Your task to perform on an android device: Go to Google Image 0: 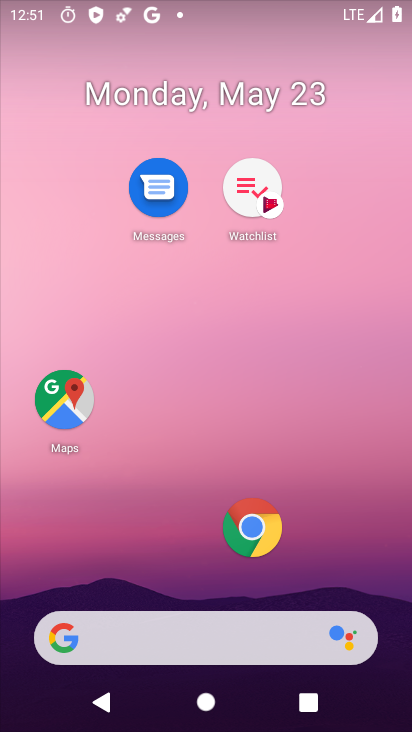
Step 0: drag from (242, 672) to (232, 320)
Your task to perform on an android device: Go to Google Image 1: 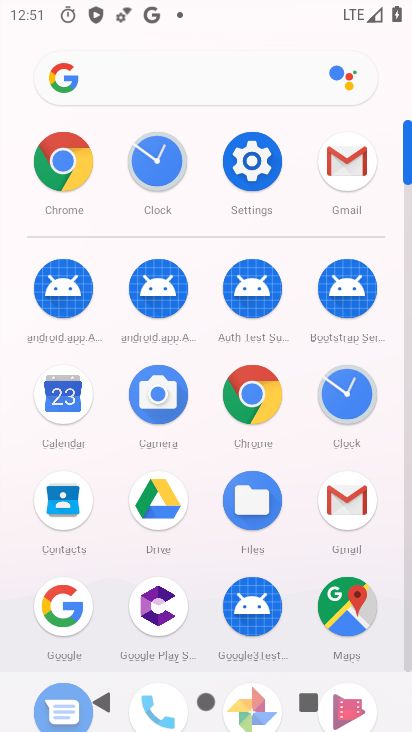
Step 1: click (71, 600)
Your task to perform on an android device: Go to Google Image 2: 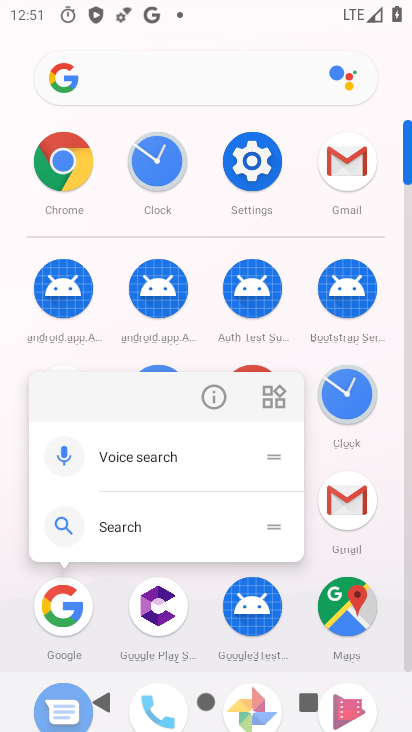
Step 2: click (66, 610)
Your task to perform on an android device: Go to Google Image 3: 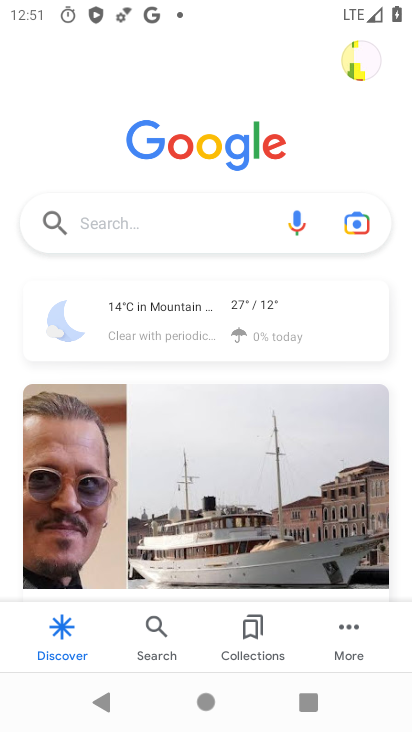
Step 3: task complete